Your task to perform on an android device: Open the map Image 0: 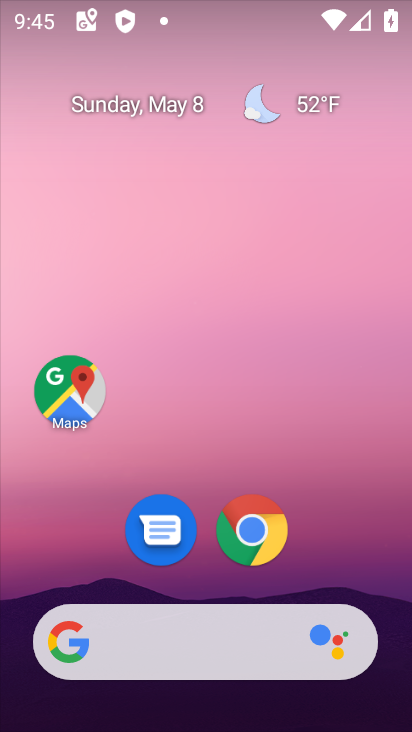
Step 0: drag from (364, 544) to (353, 78)
Your task to perform on an android device: Open the map Image 1: 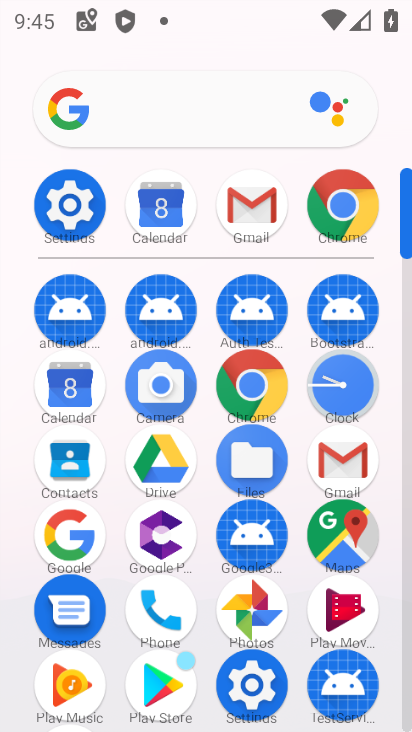
Step 1: click (339, 533)
Your task to perform on an android device: Open the map Image 2: 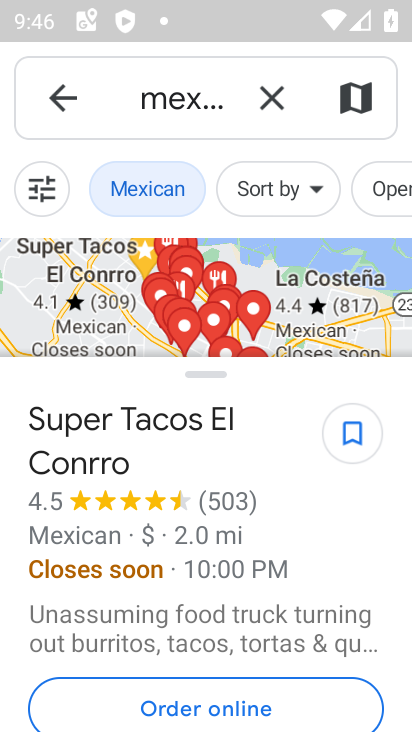
Step 2: task complete